Your task to perform on an android device: Open display settings Image 0: 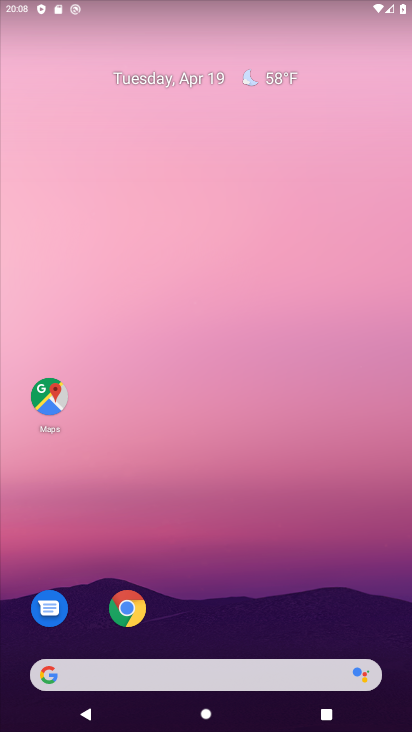
Step 0: drag from (212, 546) to (242, 21)
Your task to perform on an android device: Open display settings Image 1: 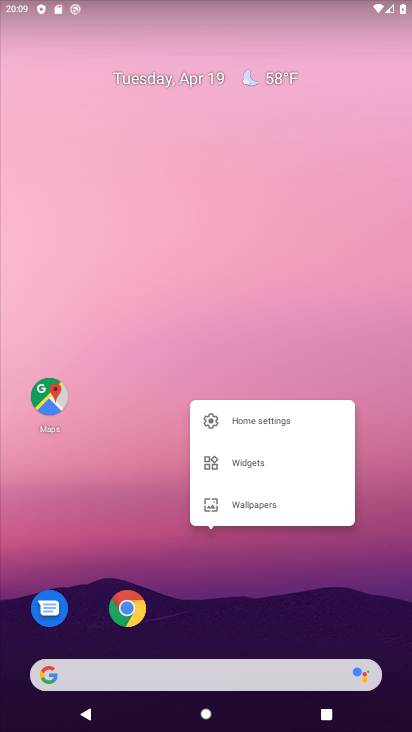
Step 1: drag from (161, 233) to (215, 5)
Your task to perform on an android device: Open display settings Image 2: 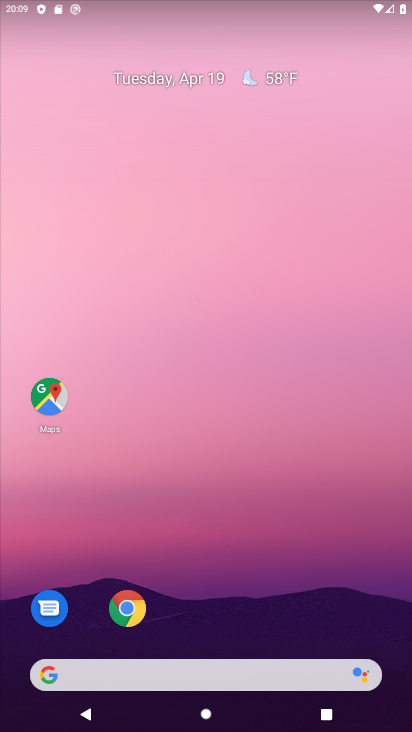
Step 2: drag from (224, 458) to (313, 8)
Your task to perform on an android device: Open display settings Image 3: 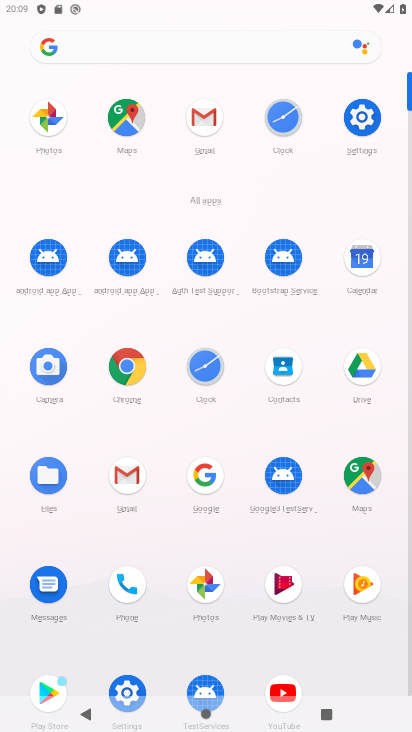
Step 3: click (363, 117)
Your task to perform on an android device: Open display settings Image 4: 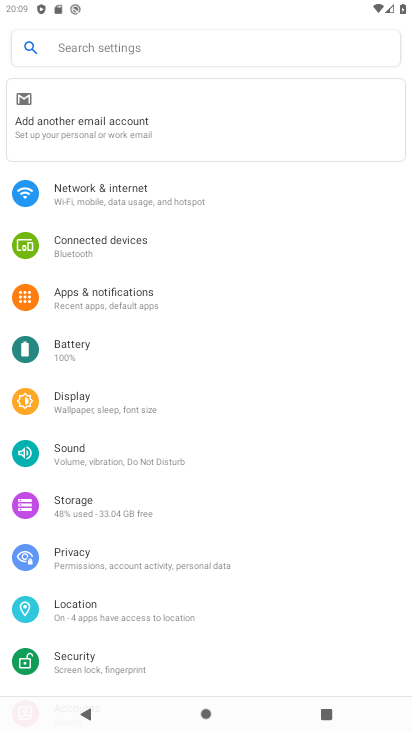
Step 4: click (78, 403)
Your task to perform on an android device: Open display settings Image 5: 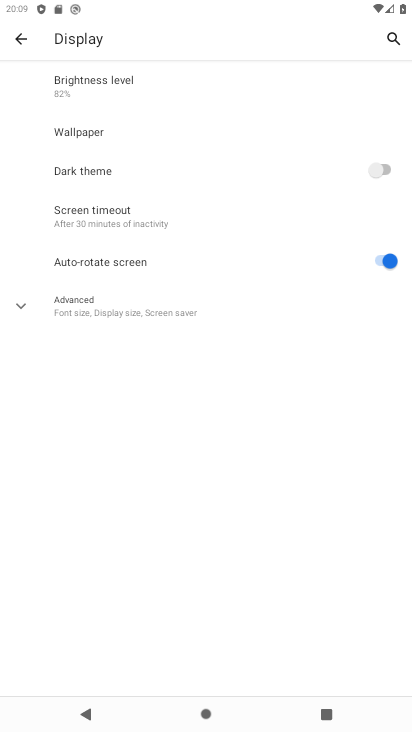
Step 5: task complete